Your task to perform on an android device: choose inbox layout in the gmail app Image 0: 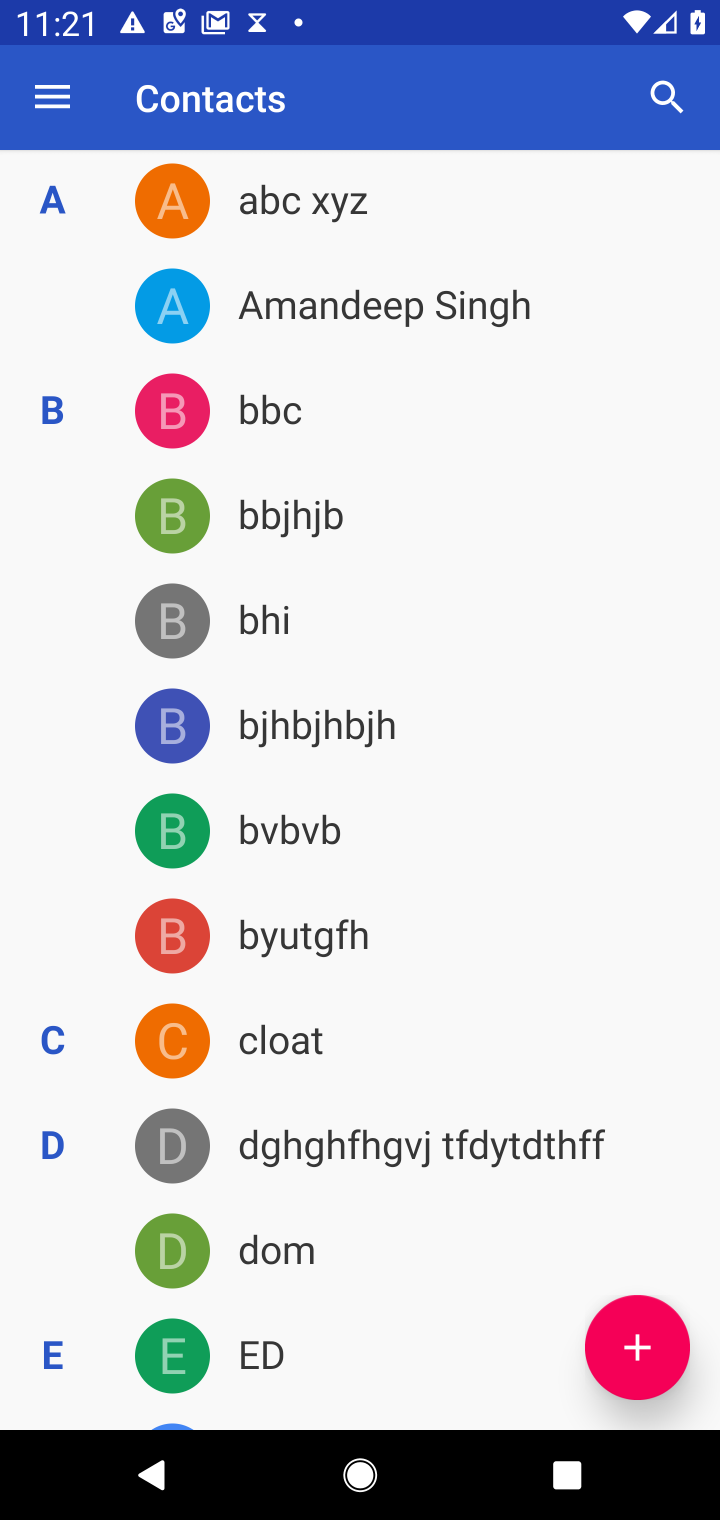
Step 0: press home button
Your task to perform on an android device: choose inbox layout in the gmail app Image 1: 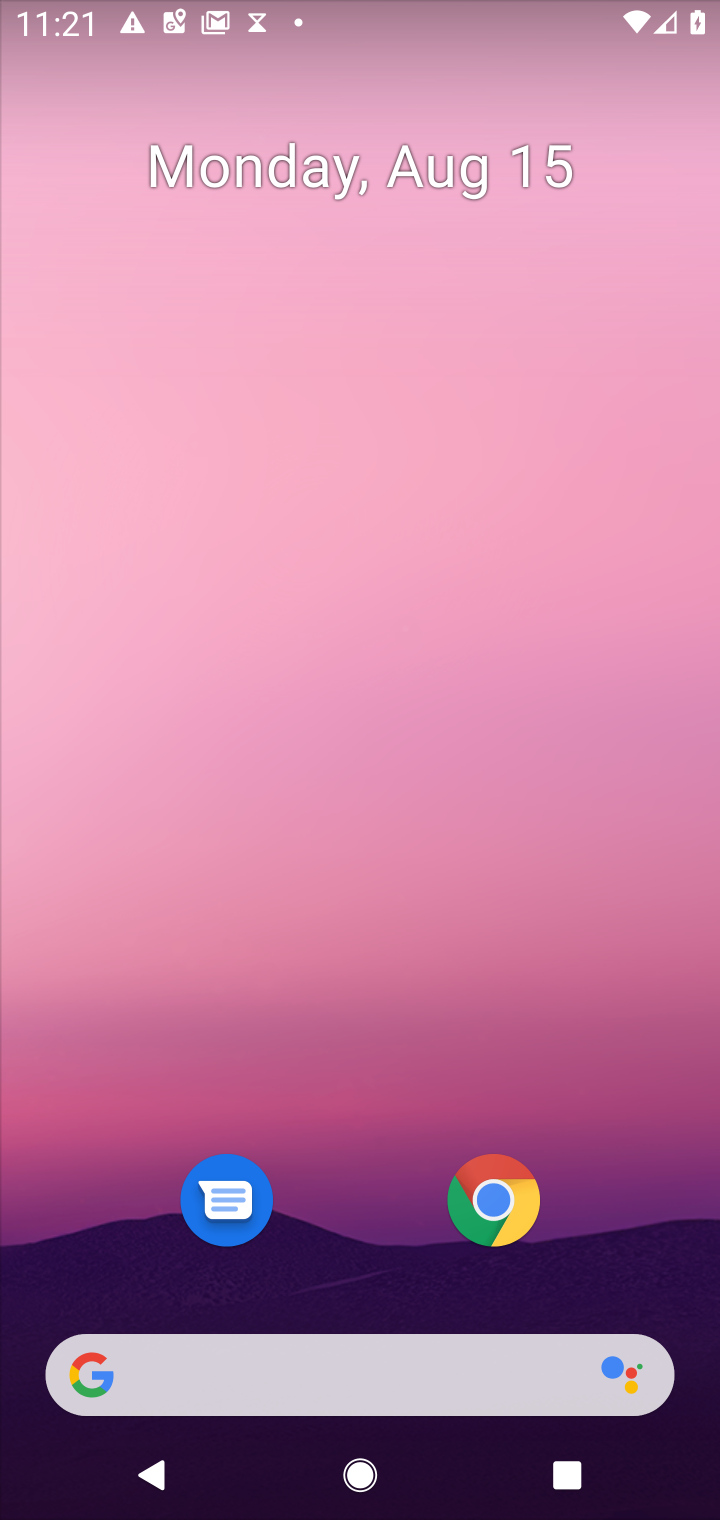
Step 1: drag from (332, 1034) to (363, 524)
Your task to perform on an android device: choose inbox layout in the gmail app Image 2: 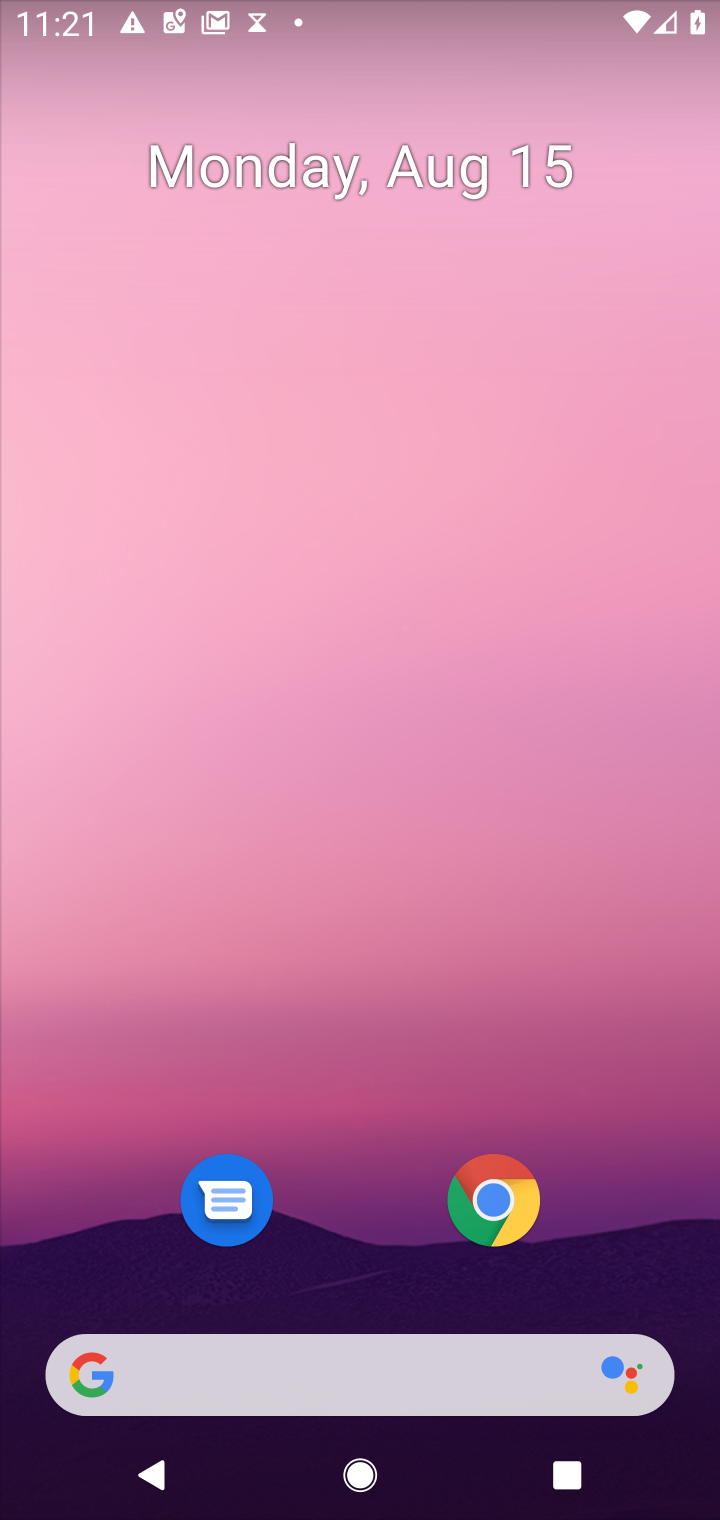
Step 2: drag from (340, 1190) to (376, 396)
Your task to perform on an android device: choose inbox layout in the gmail app Image 3: 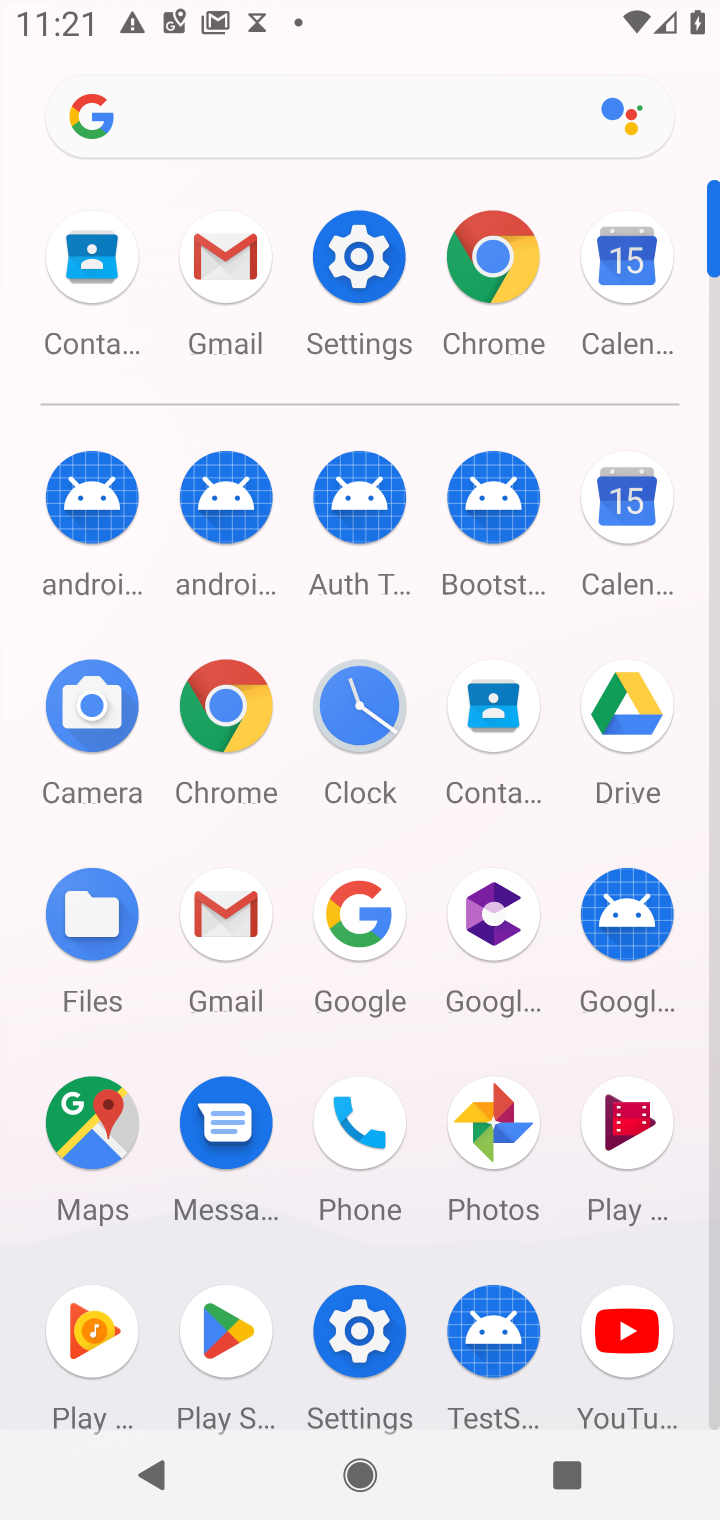
Step 3: click (246, 280)
Your task to perform on an android device: choose inbox layout in the gmail app Image 4: 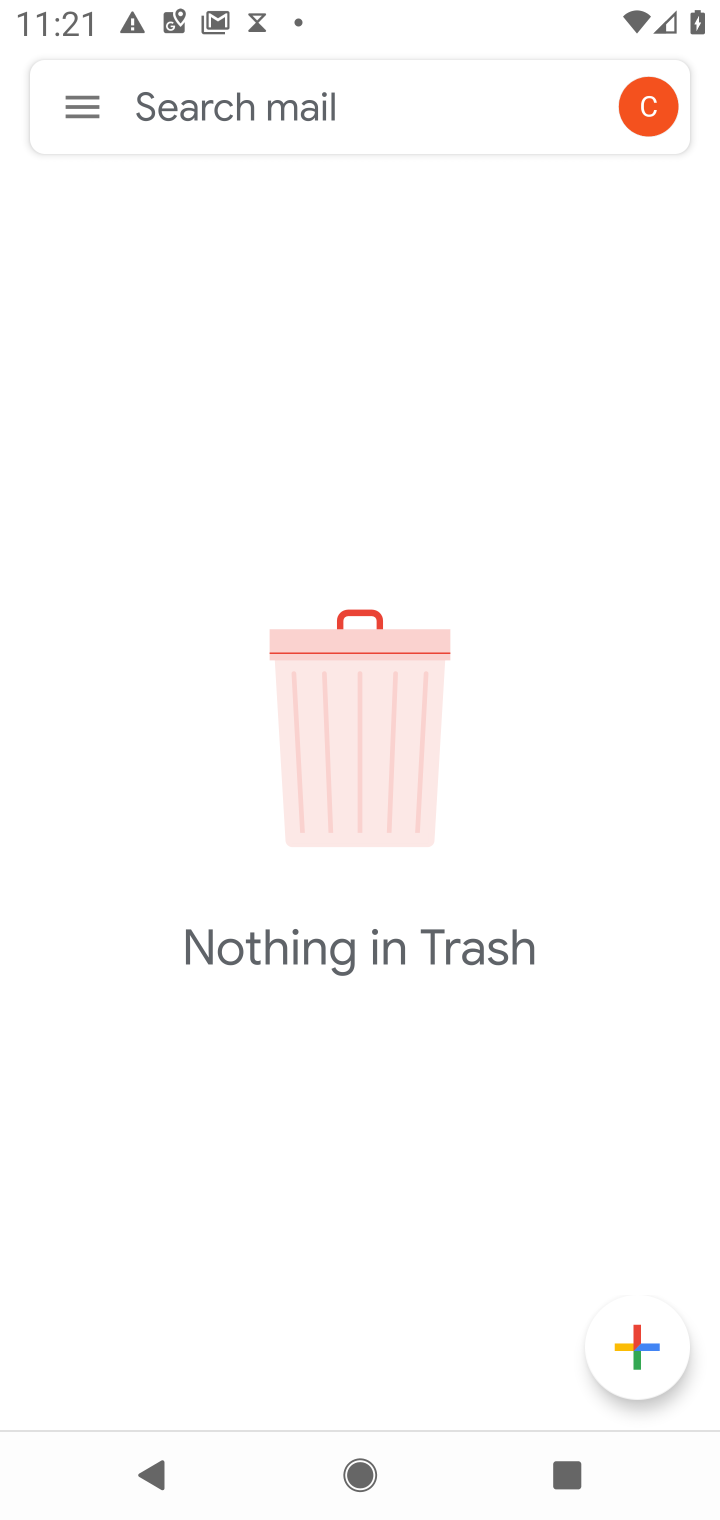
Step 4: click (101, 109)
Your task to perform on an android device: choose inbox layout in the gmail app Image 5: 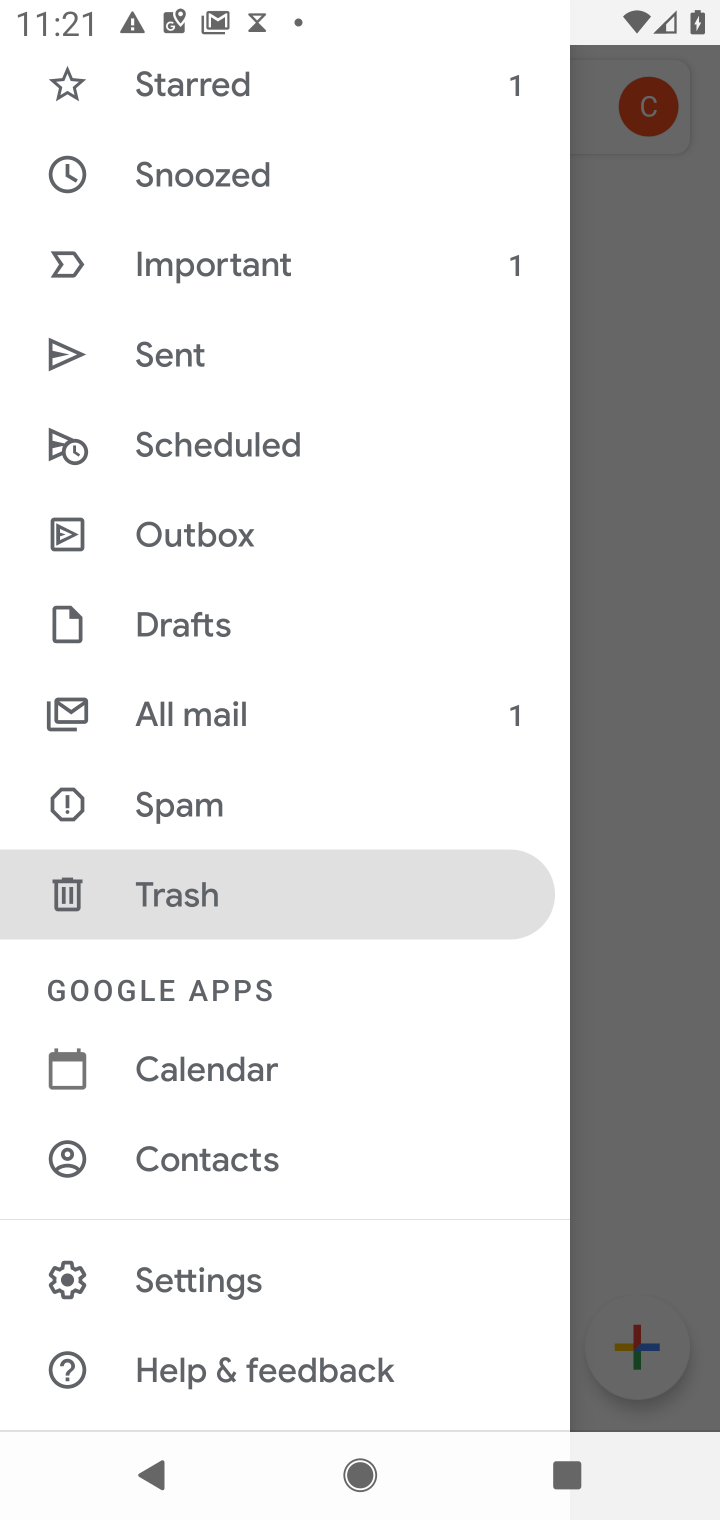
Step 5: click (251, 1286)
Your task to perform on an android device: choose inbox layout in the gmail app Image 6: 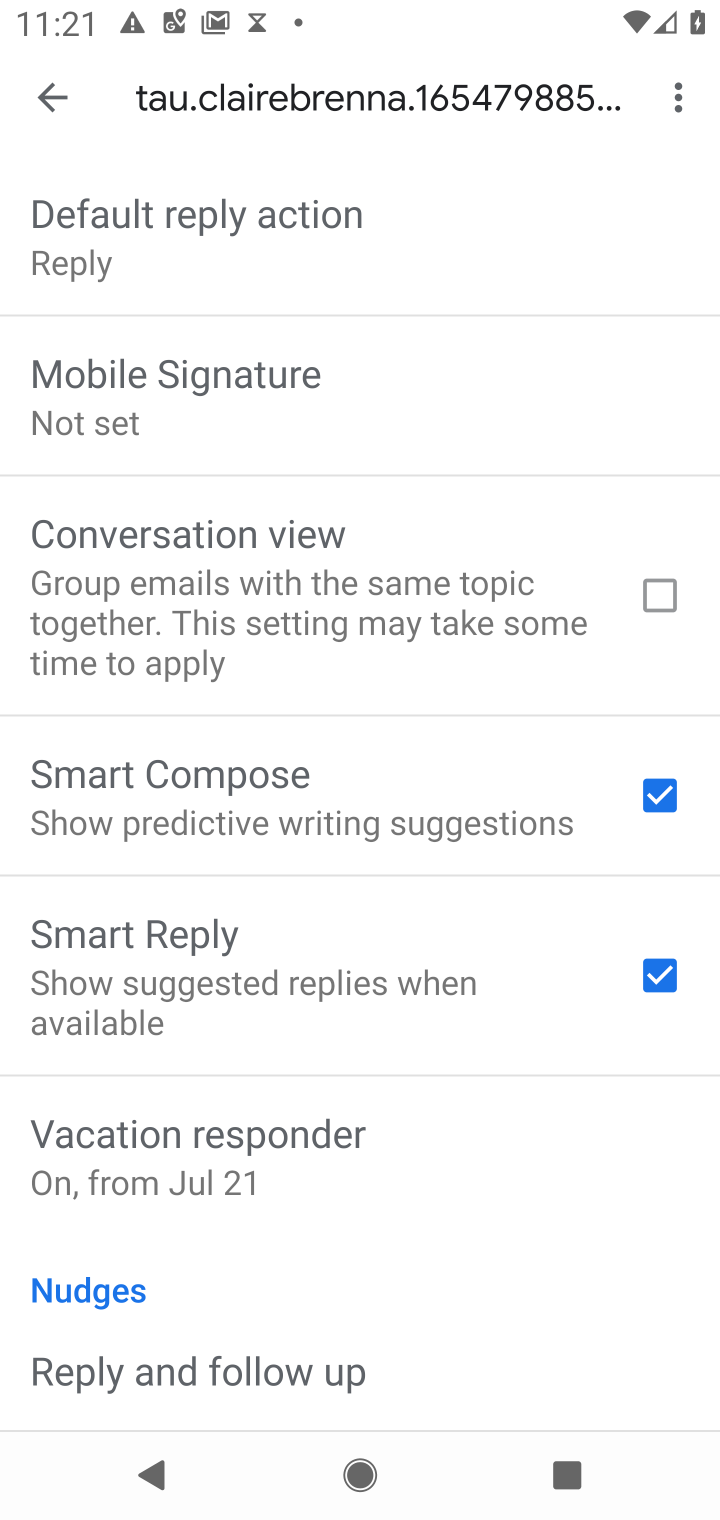
Step 6: drag from (329, 332) to (390, 1025)
Your task to perform on an android device: choose inbox layout in the gmail app Image 7: 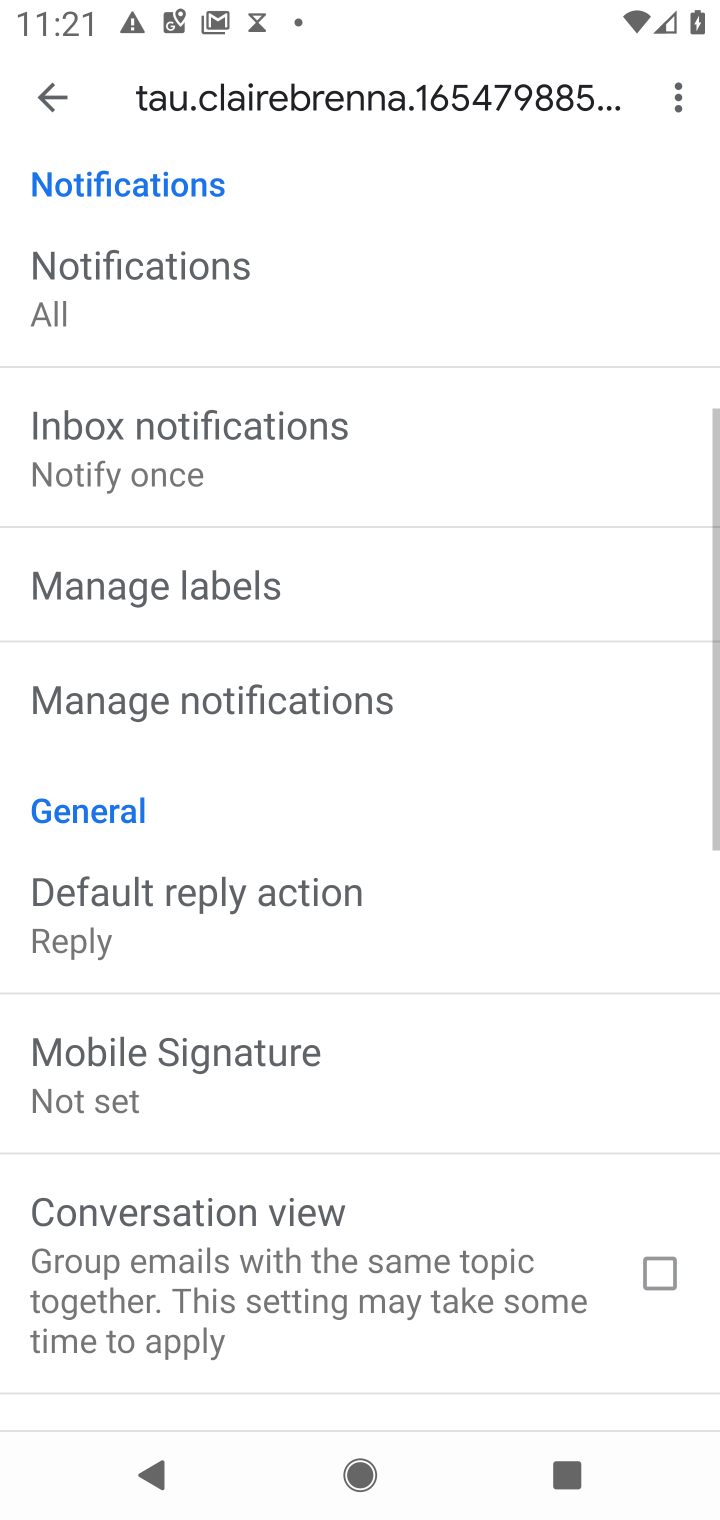
Step 7: drag from (345, 387) to (345, 1101)
Your task to perform on an android device: choose inbox layout in the gmail app Image 8: 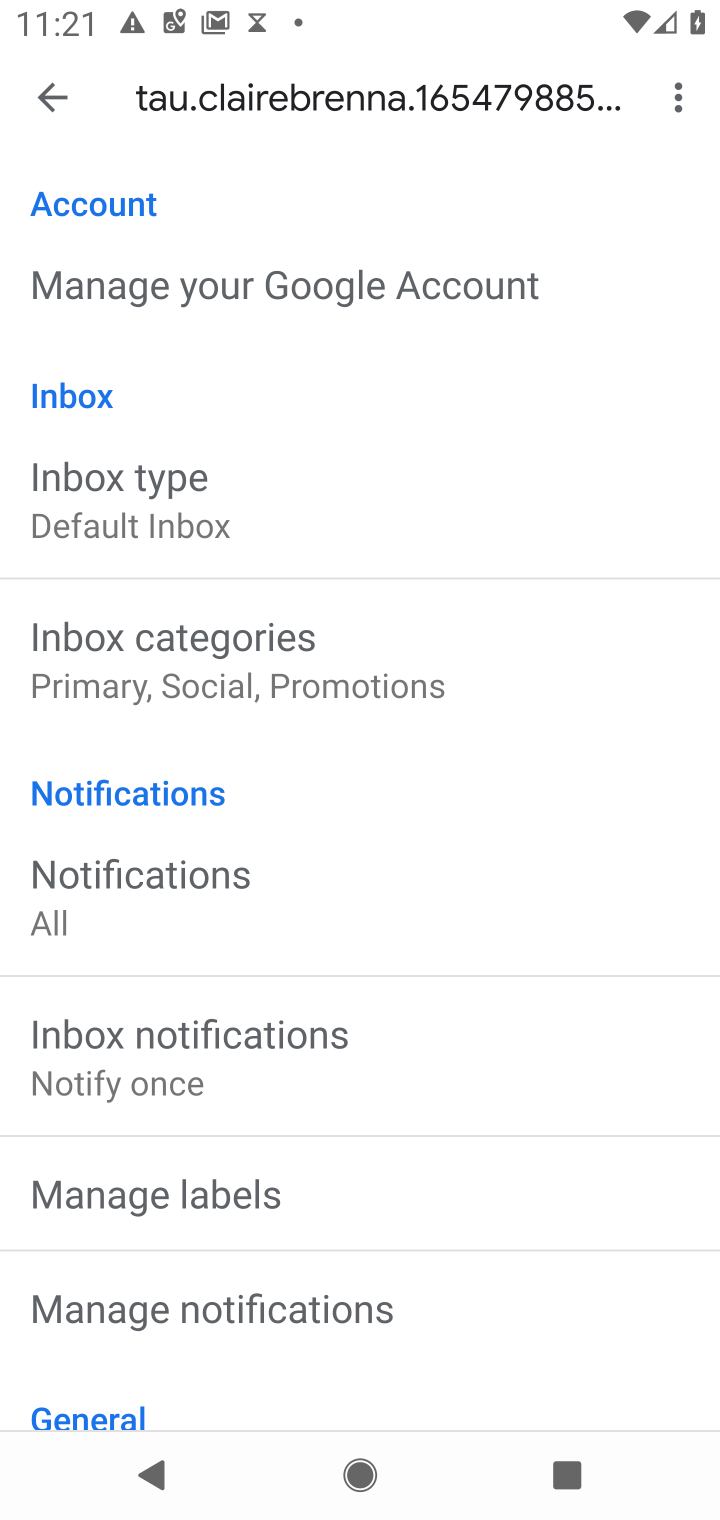
Step 8: drag from (388, 413) to (386, 1135)
Your task to perform on an android device: choose inbox layout in the gmail app Image 9: 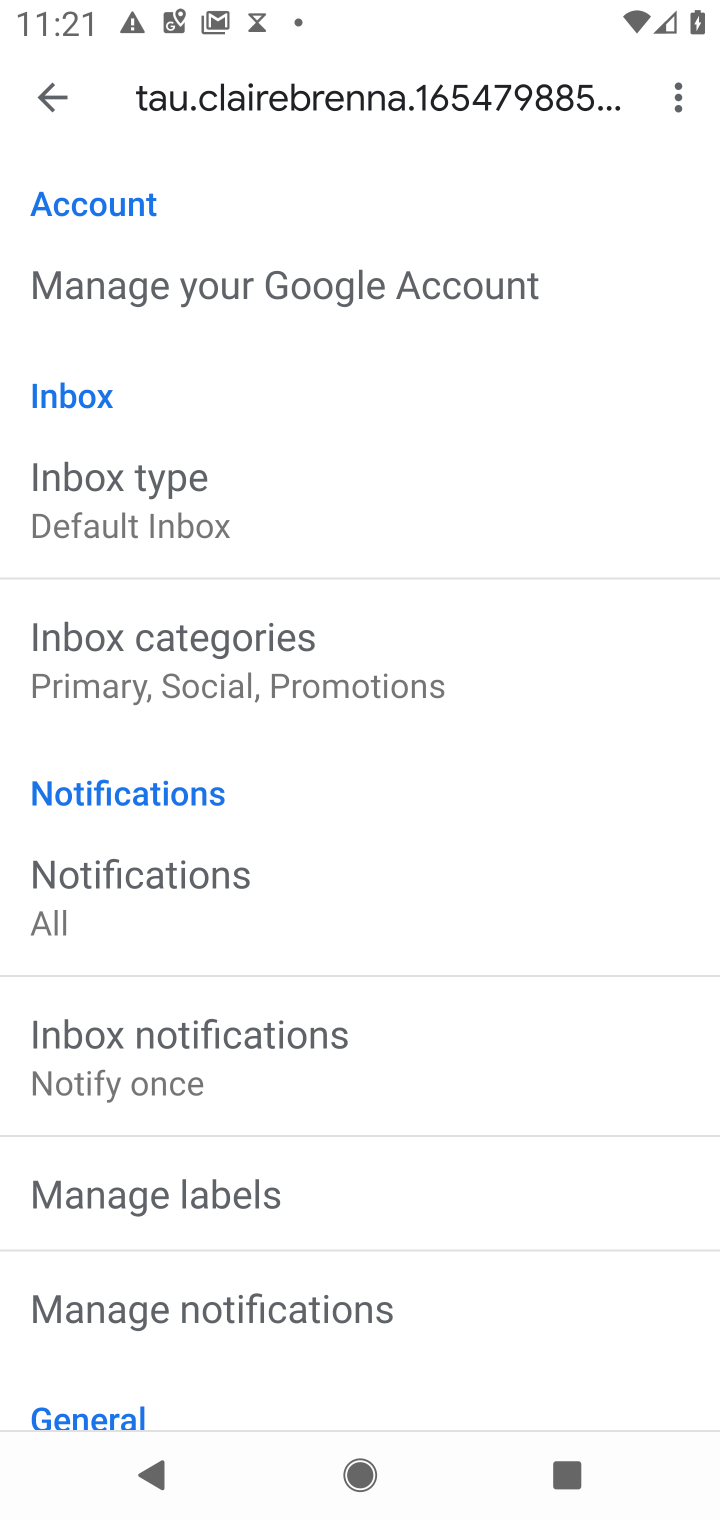
Step 9: drag from (265, 494) to (284, 1237)
Your task to perform on an android device: choose inbox layout in the gmail app Image 10: 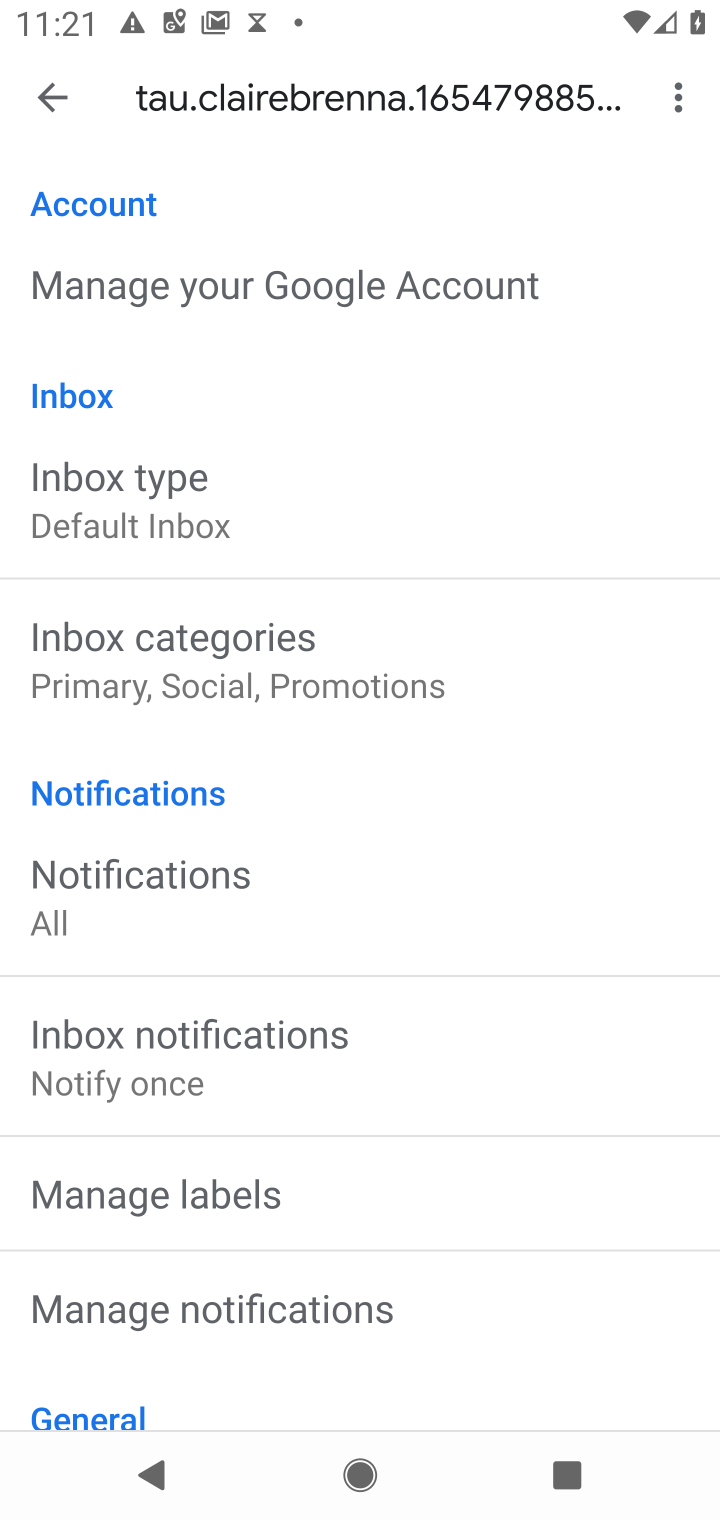
Step 10: click (153, 518)
Your task to perform on an android device: choose inbox layout in the gmail app Image 11: 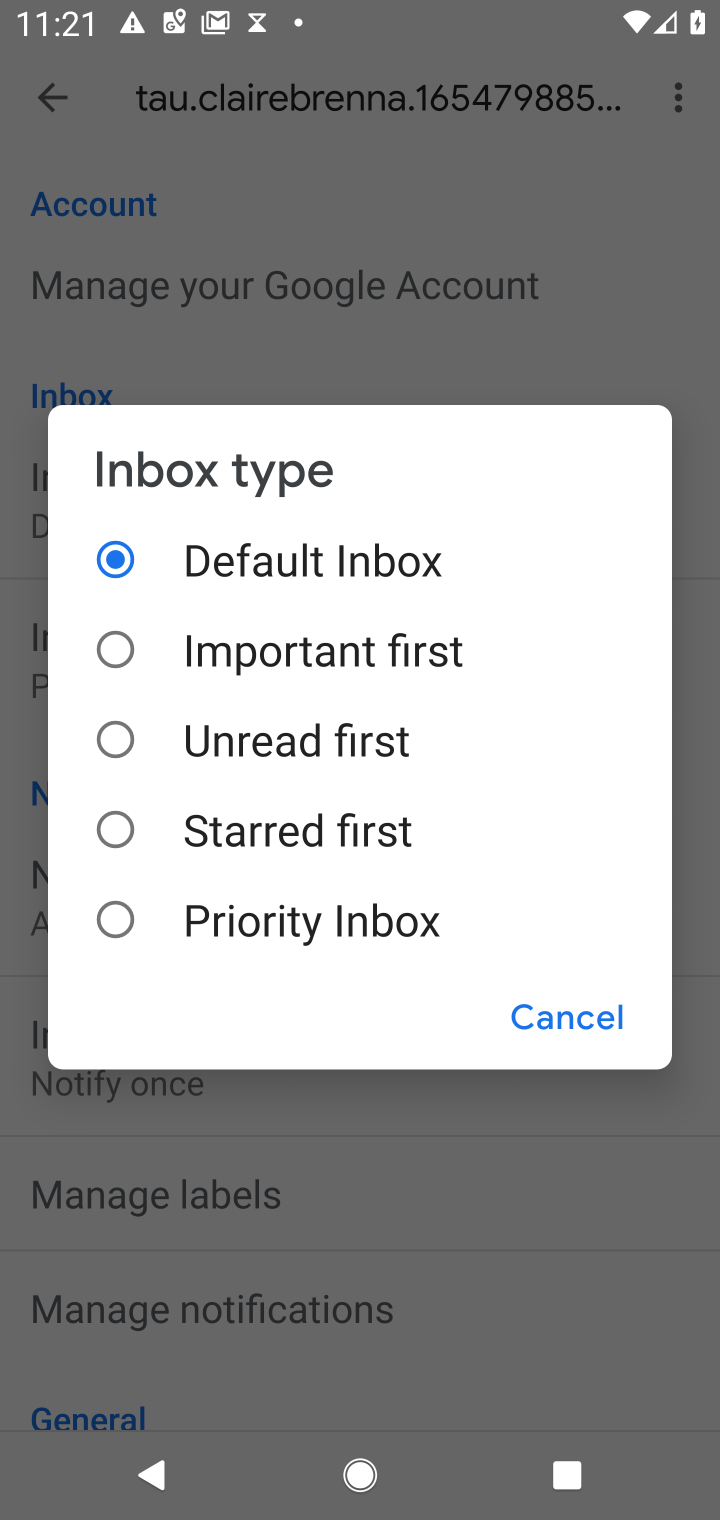
Step 11: click (346, 908)
Your task to perform on an android device: choose inbox layout in the gmail app Image 12: 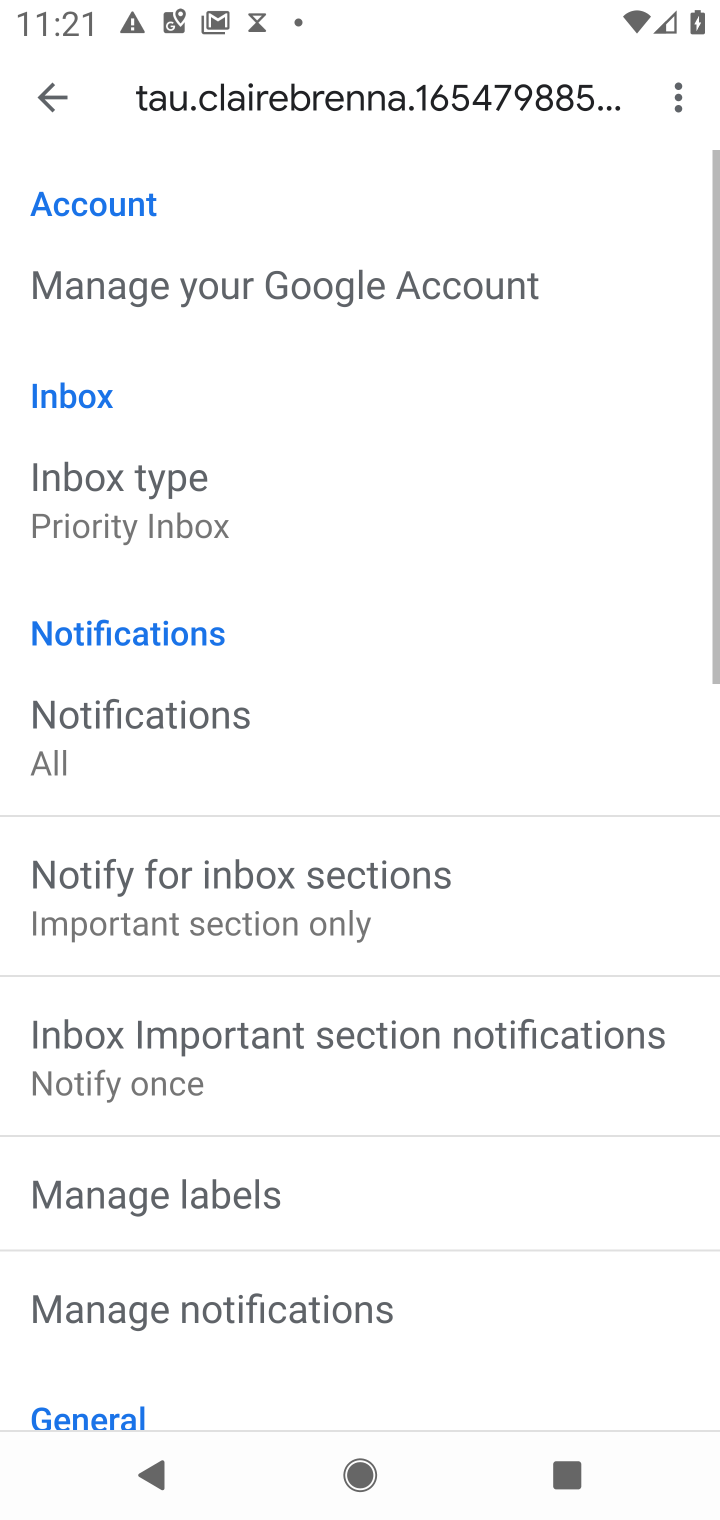
Step 12: task complete